Your task to perform on an android device: empty trash in the gmail app Image 0: 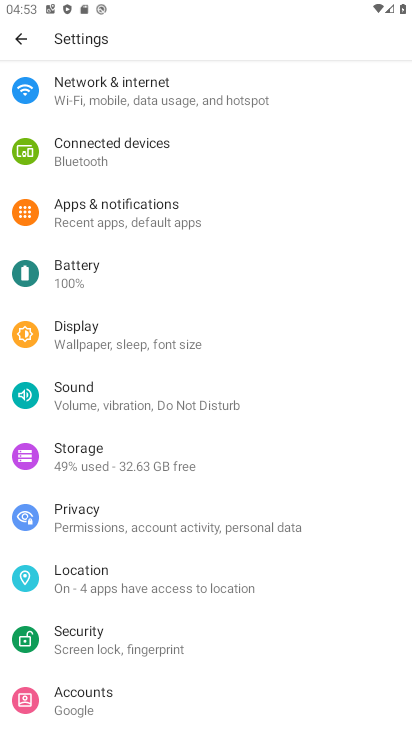
Step 0: press home button
Your task to perform on an android device: empty trash in the gmail app Image 1: 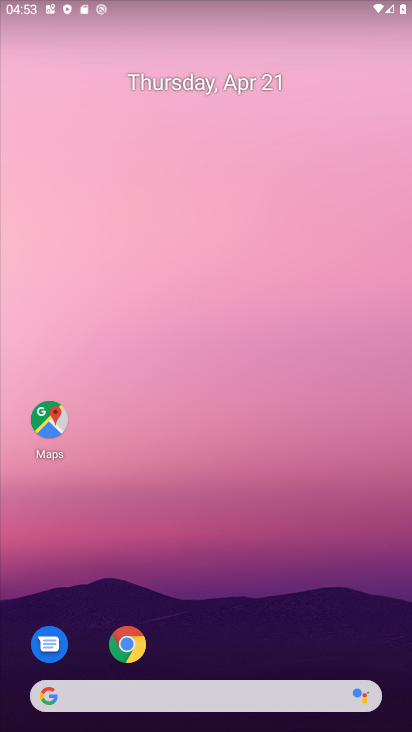
Step 1: drag from (265, 591) to (283, 207)
Your task to perform on an android device: empty trash in the gmail app Image 2: 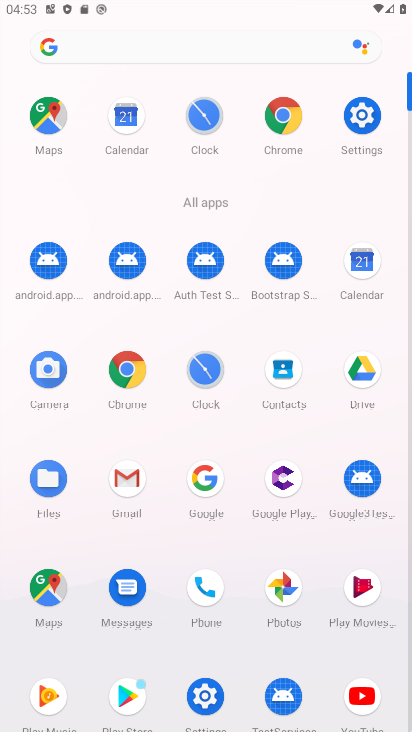
Step 2: click (129, 481)
Your task to perform on an android device: empty trash in the gmail app Image 3: 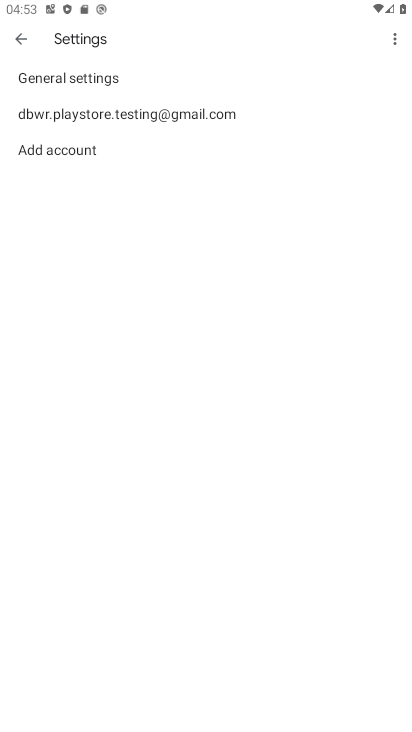
Step 3: click (18, 40)
Your task to perform on an android device: empty trash in the gmail app Image 4: 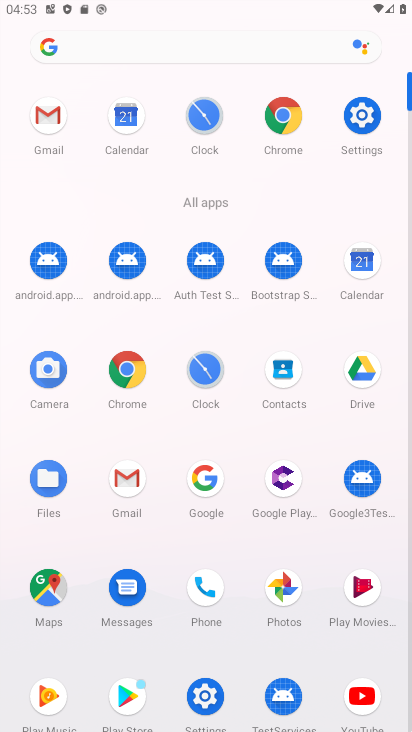
Step 4: click (121, 493)
Your task to perform on an android device: empty trash in the gmail app Image 5: 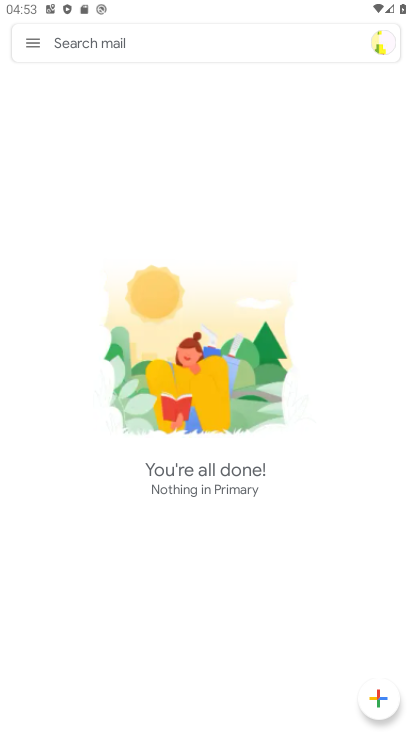
Step 5: click (30, 42)
Your task to perform on an android device: empty trash in the gmail app Image 6: 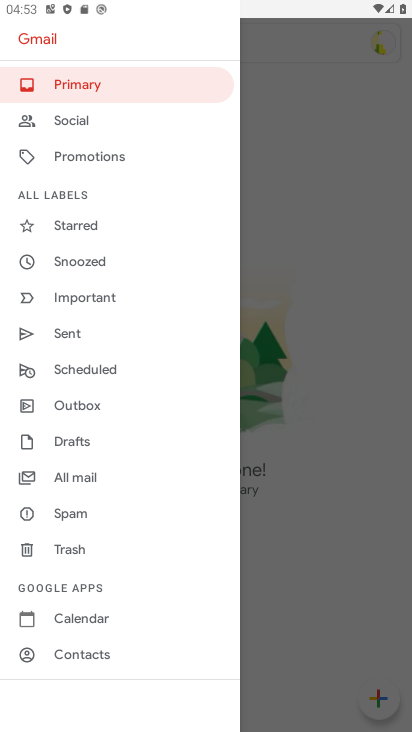
Step 6: click (56, 545)
Your task to perform on an android device: empty trash in the gmail app Image 7: 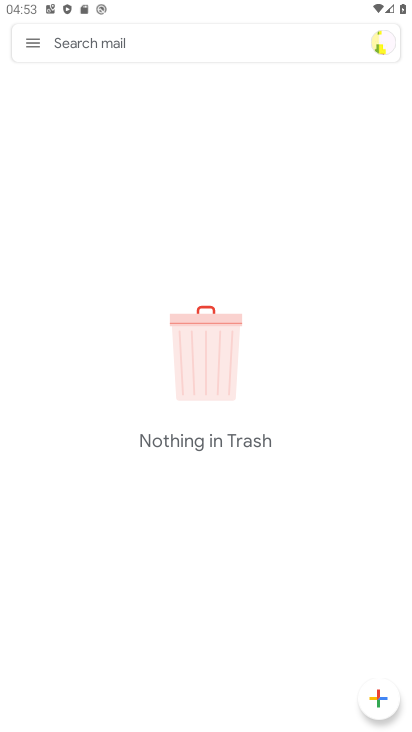
Step 7: task complete